Your task to perform on an android device: open app "ColorNote Notepad Notes" (install if not already installed) Image 0: 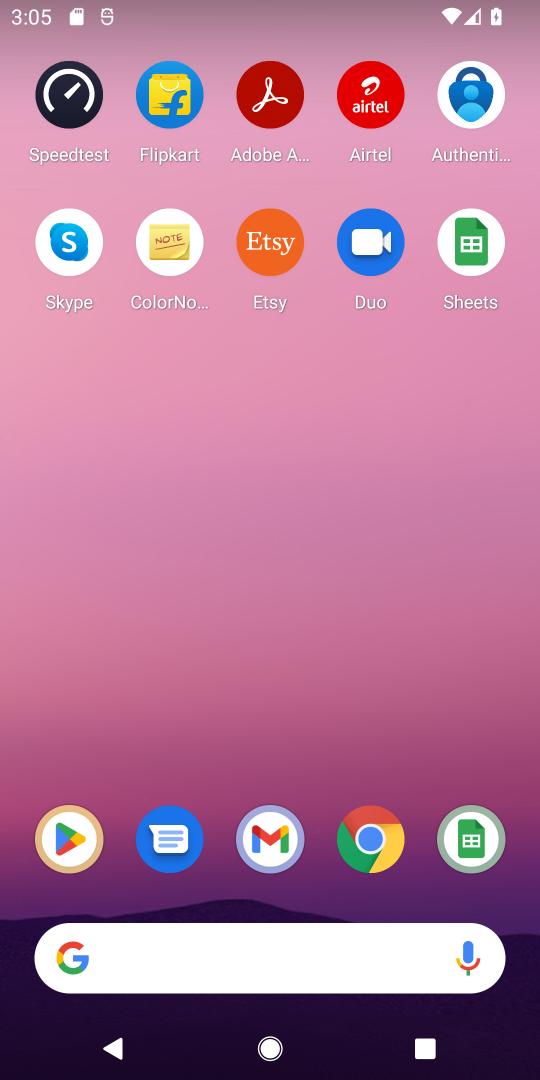
Step 0: click (169, 289)
Your task to perform on an android device: open app "ColorNote Notepad Notes" (install if not already installed) Image 1: 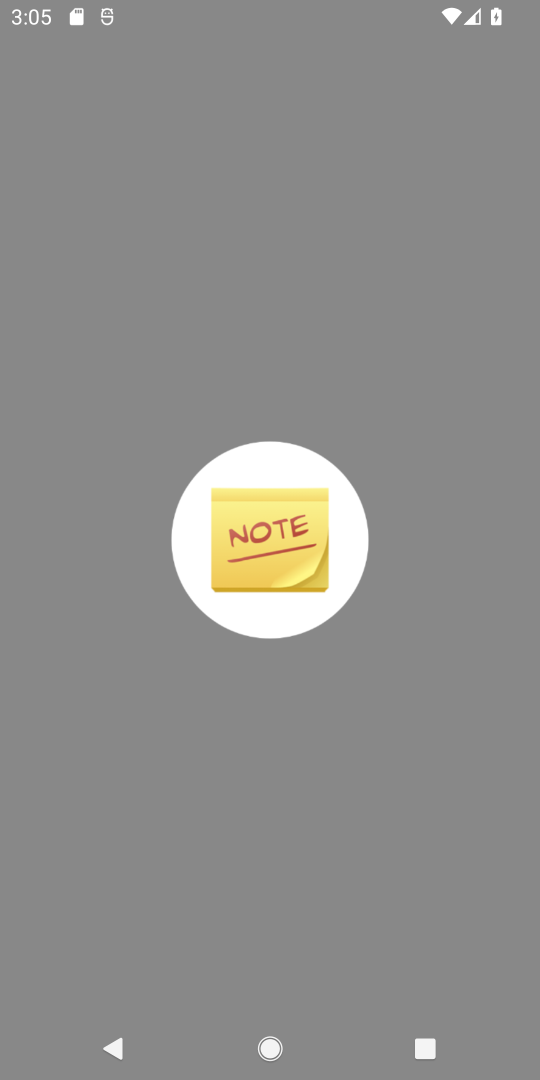
Step 1: task complete